Your task to perform on an android device: change notifications settings Image 0: 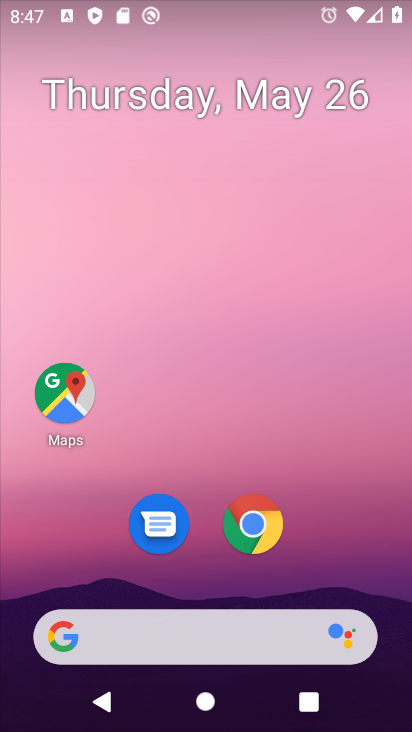
Step 0: drag from (188, 446) to (171, 3)
Your task to perform on an android device: change notifications settings Image 1: 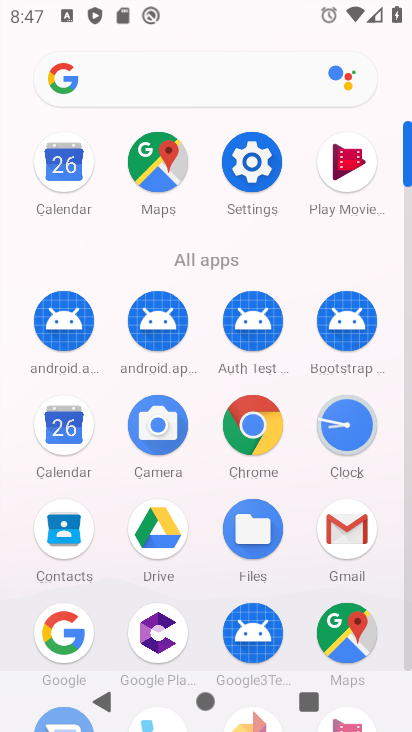
Step 1: click (240, 158)
Your task to perform on an android device: change notifications settings Image 2: 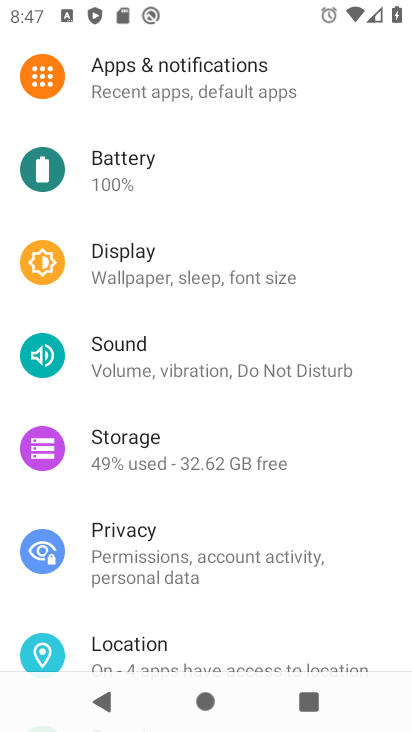
Step 2: click (231, 76)
Your task to perform on an android device: change notifications settings Image 3: 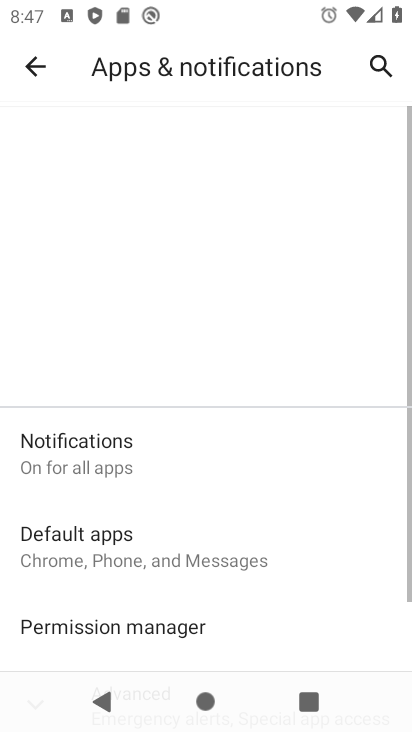
Step 3: click (231, 73)
Your task to perform on an android device: change notifications settings Image 4: 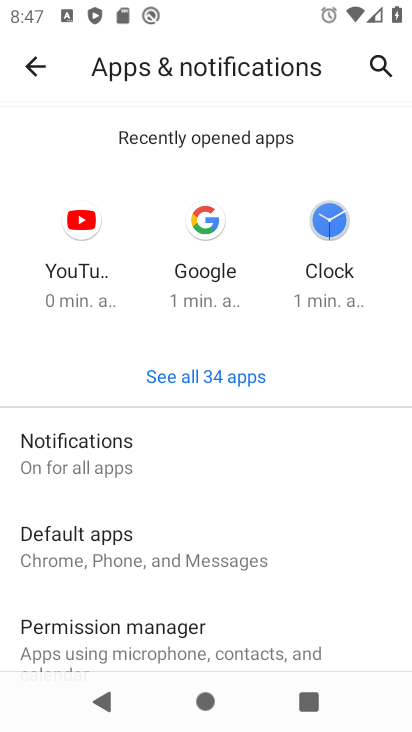
Step 4: click (129, 440)
Your task to perform on an android device: change notifications settings Image 5: 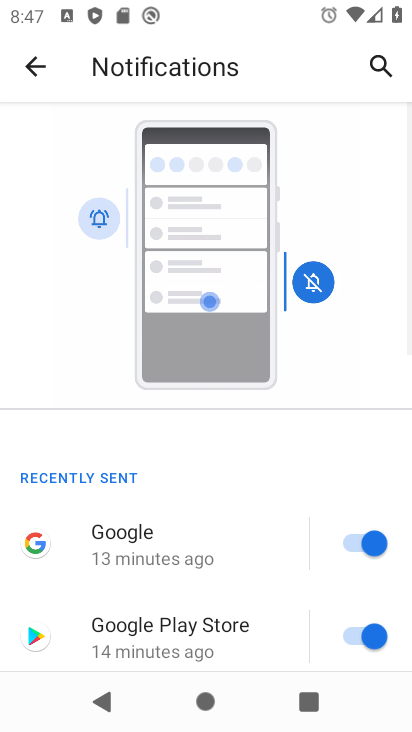
Step 5: drag from (264, 506) to (280, 93)
Your task to perform on an android device: change notifications settings Image 6: 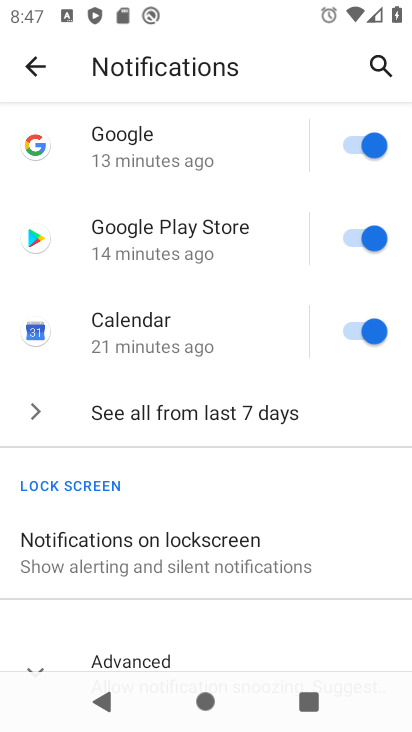
Step 6: click (243, 406)
Your task to perform on an android device: change notifications settings Image 7: 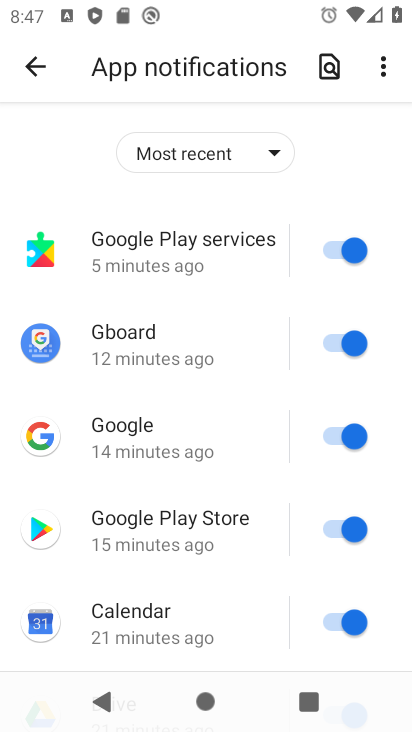
Step 7: click (340, 247)
Your task to perform on an android device: change notifications settings Image 8: 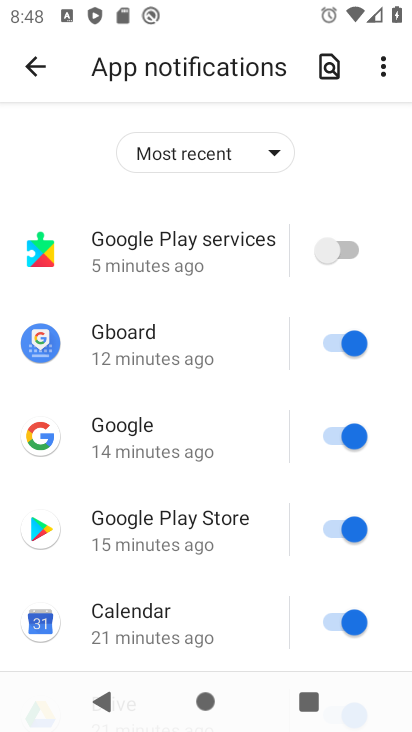
Step 8: click (351, 352)
Your task to perform on an android device: change notifications settings Image 9: 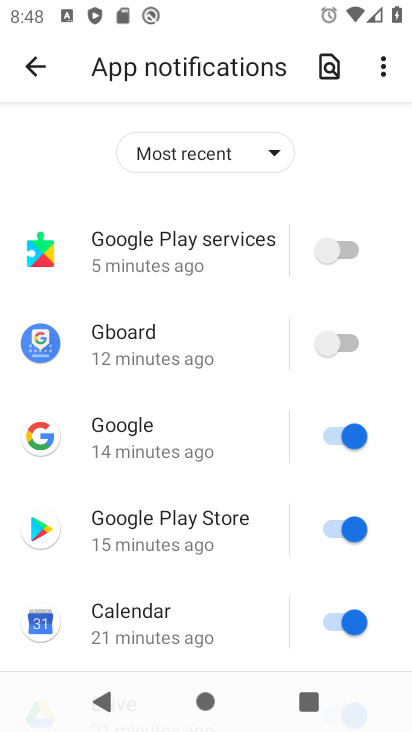
Step 9: click (362, 425)
Your task to perform on an android device: change notifications settings Image 10: 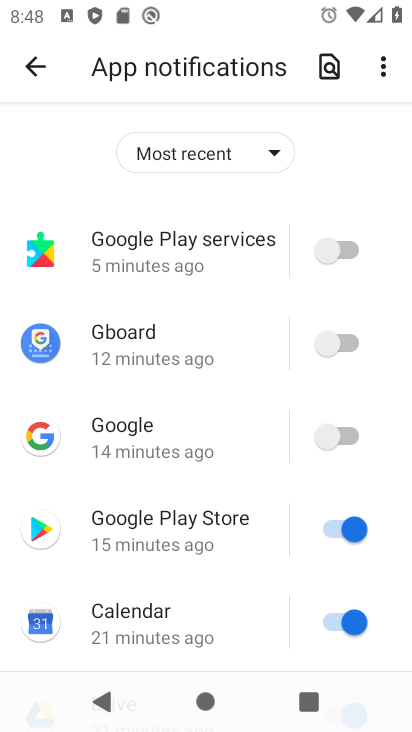
Step 10: click (351, 516)
Your task to perform on an android device: change notifications settings Image 11: 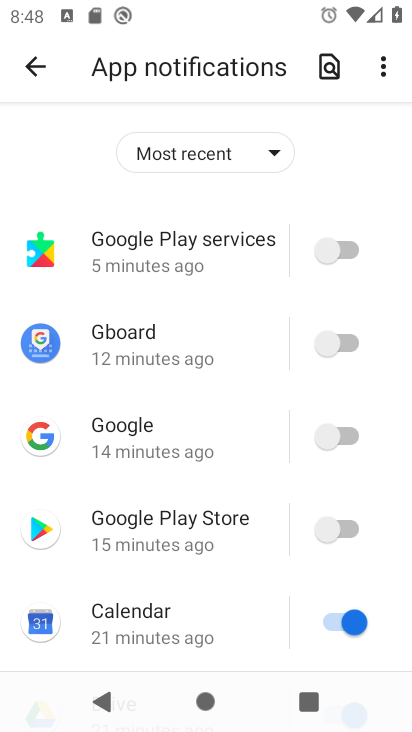
Step 11: click (354, 610)
Your task to perform on an android device: change notifications settings Image 12: 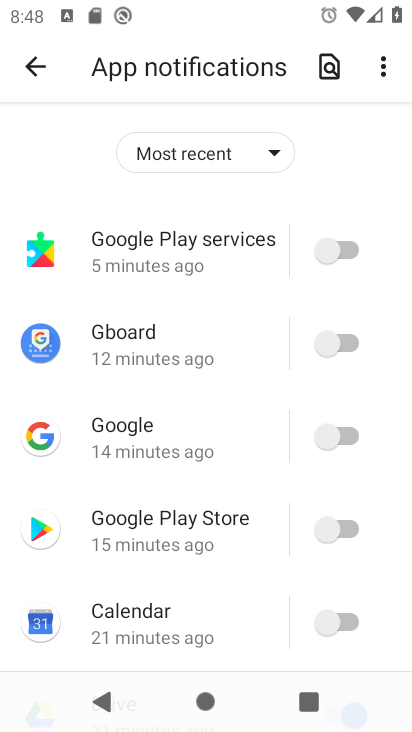
Step 12: drag from (226, 560) to (169, 14)
Your task to perform on an android device: change notifications settings Image 13: 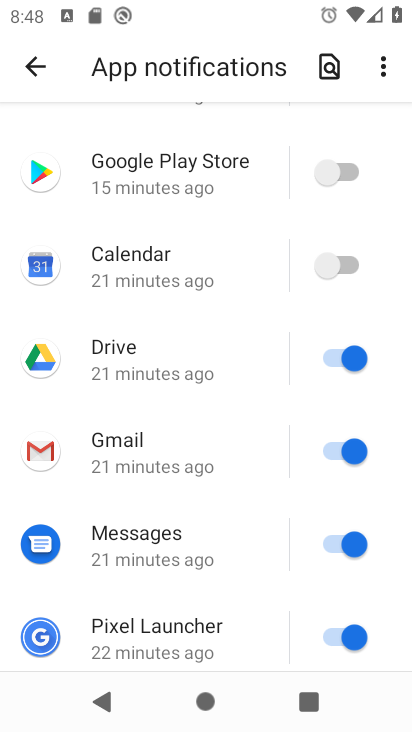
Step 13: click (341, 349)
Your task to perform on an android device: change notifications settings Image 14: 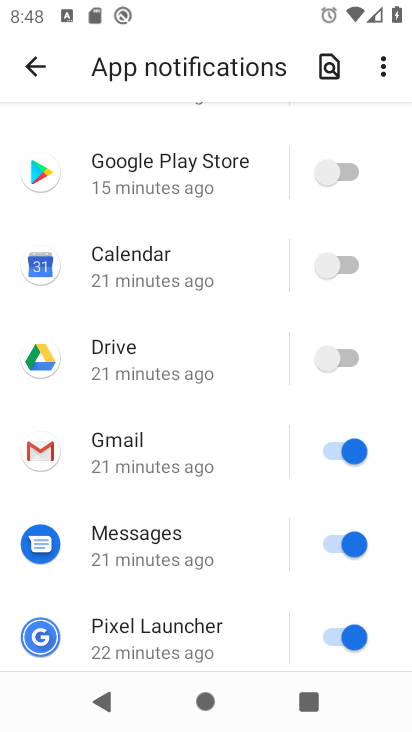
Step 14: click (338, 453)
Your task to perform on an android device: change notifications settings Image 15: 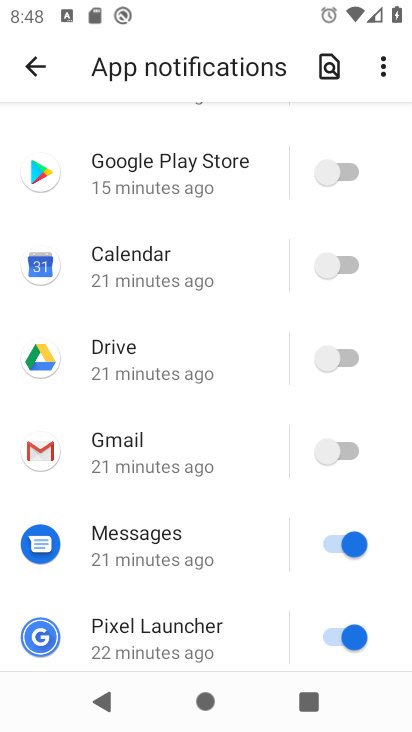
Step 15: click (340, 541)
Your task to perform on an android device: change notifications settings Image 16: 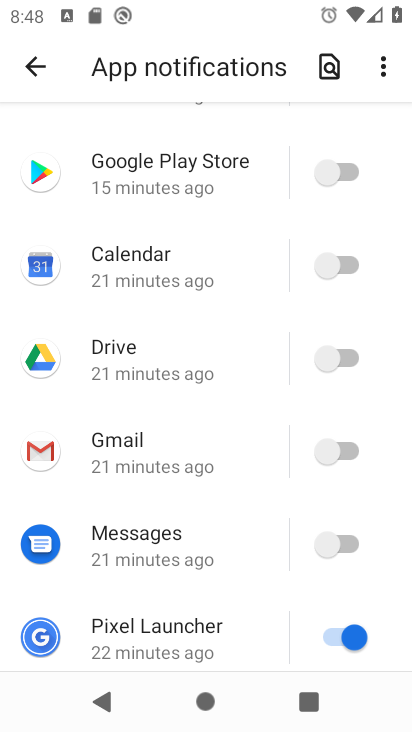
Step 16: click (338, 631)
Your task to perform on an android device: change notifications settings Image 17: 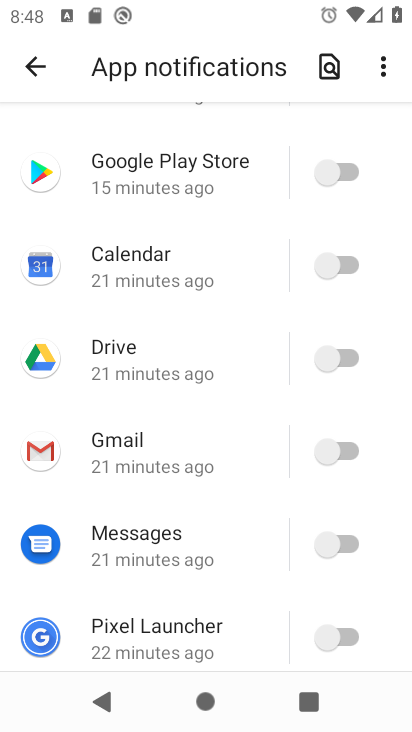
Step 17: task complete